Your task to perform on an android device: install app "Fetch Rewards" Image 0: 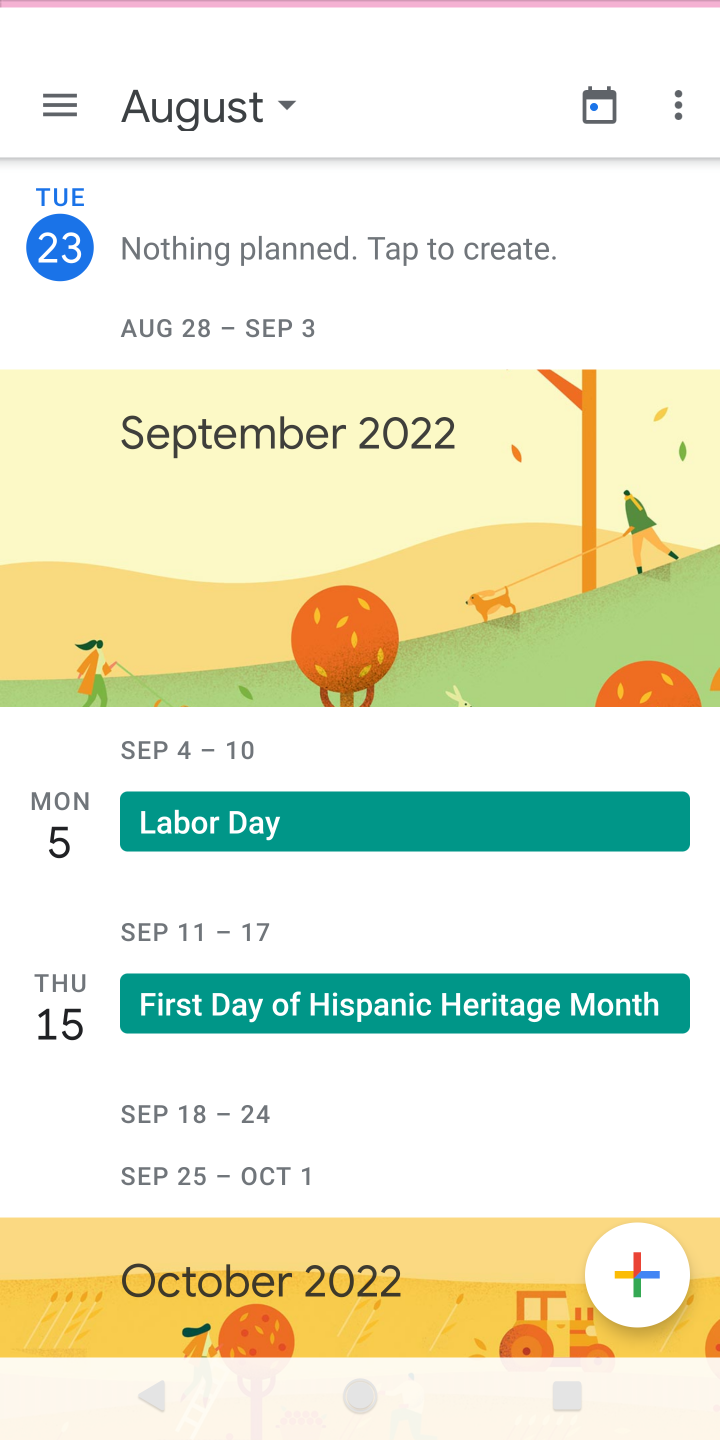
Step 0: press home button
Your task to perform on an android device: install app "Fetch Rewards" Image 1: 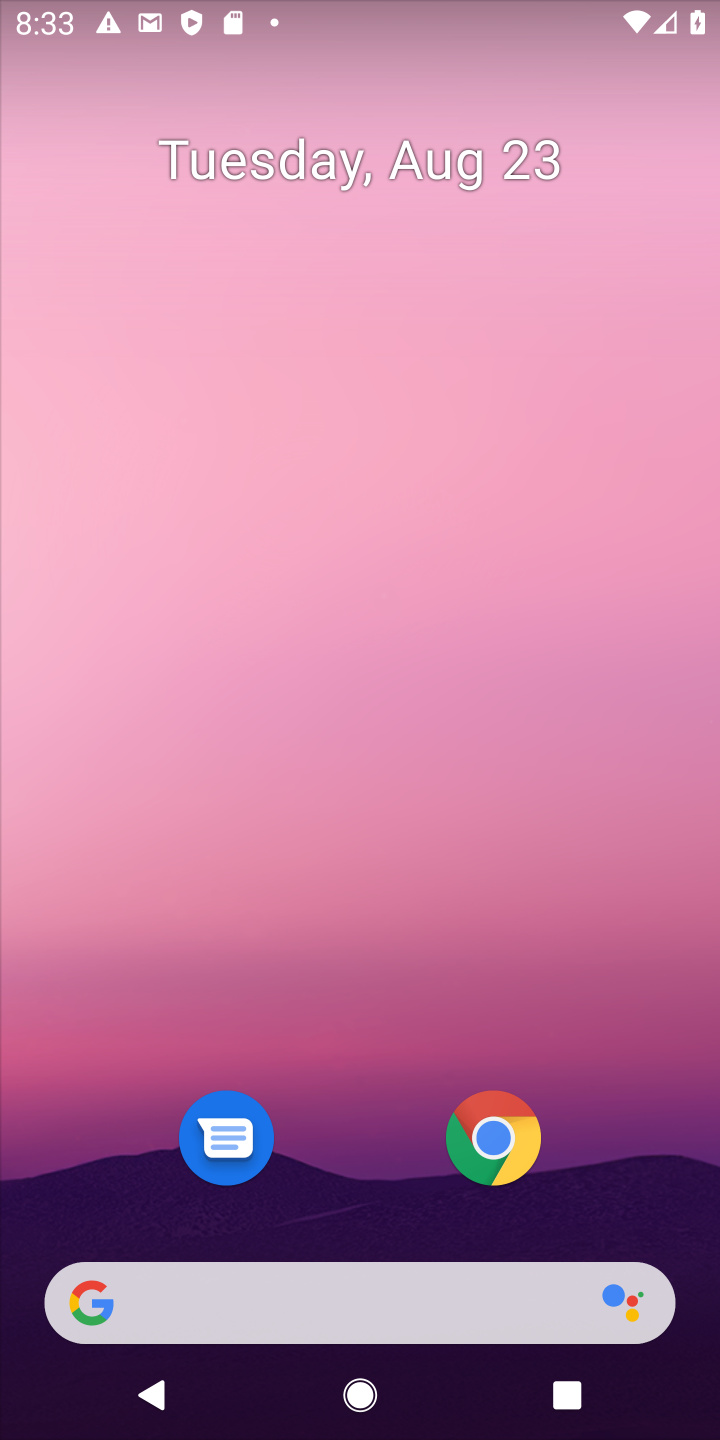
Step 1: drag from (614, 928) to (613, 111)
Your task to perform on an android device: install app "Fetch Rewards" Image 2: 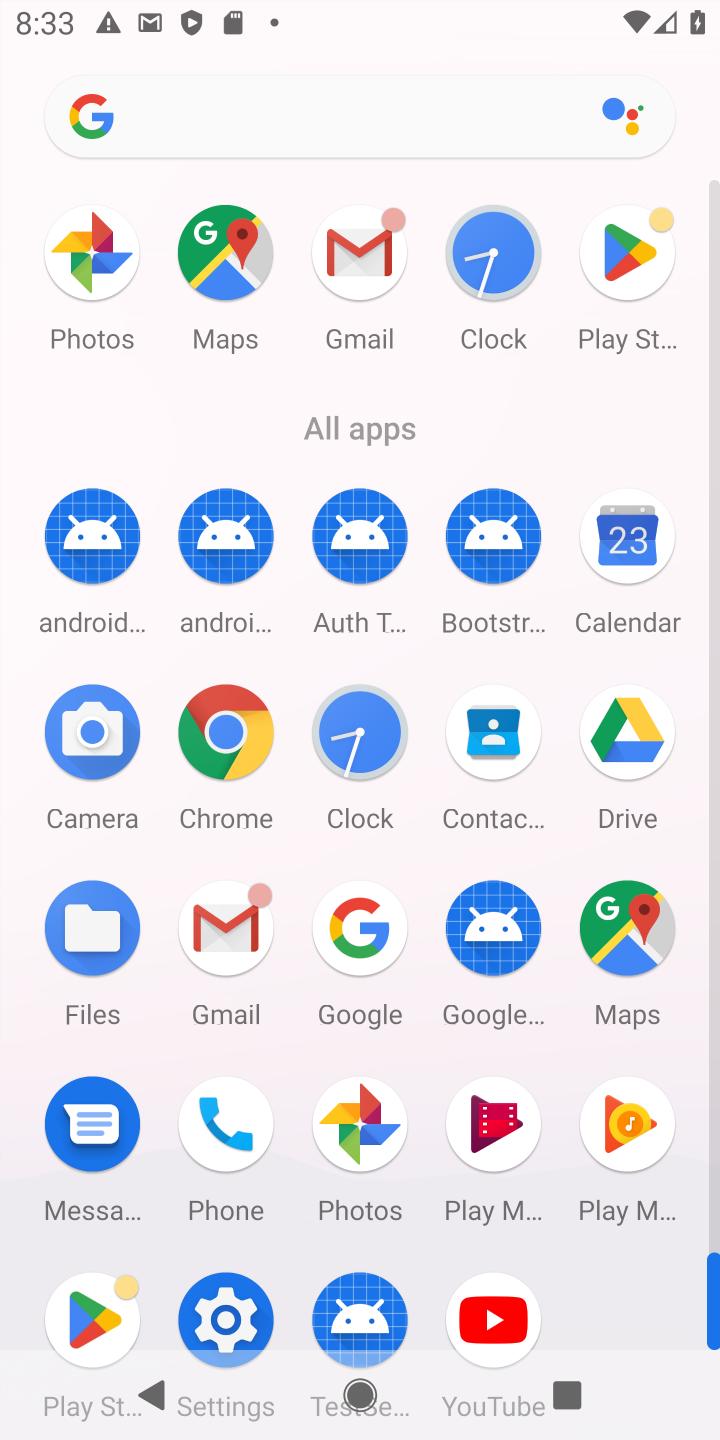
Step 2: click (643, 255)
Your task to perform on an android device: install app "Fetch Rewards" Image 3: 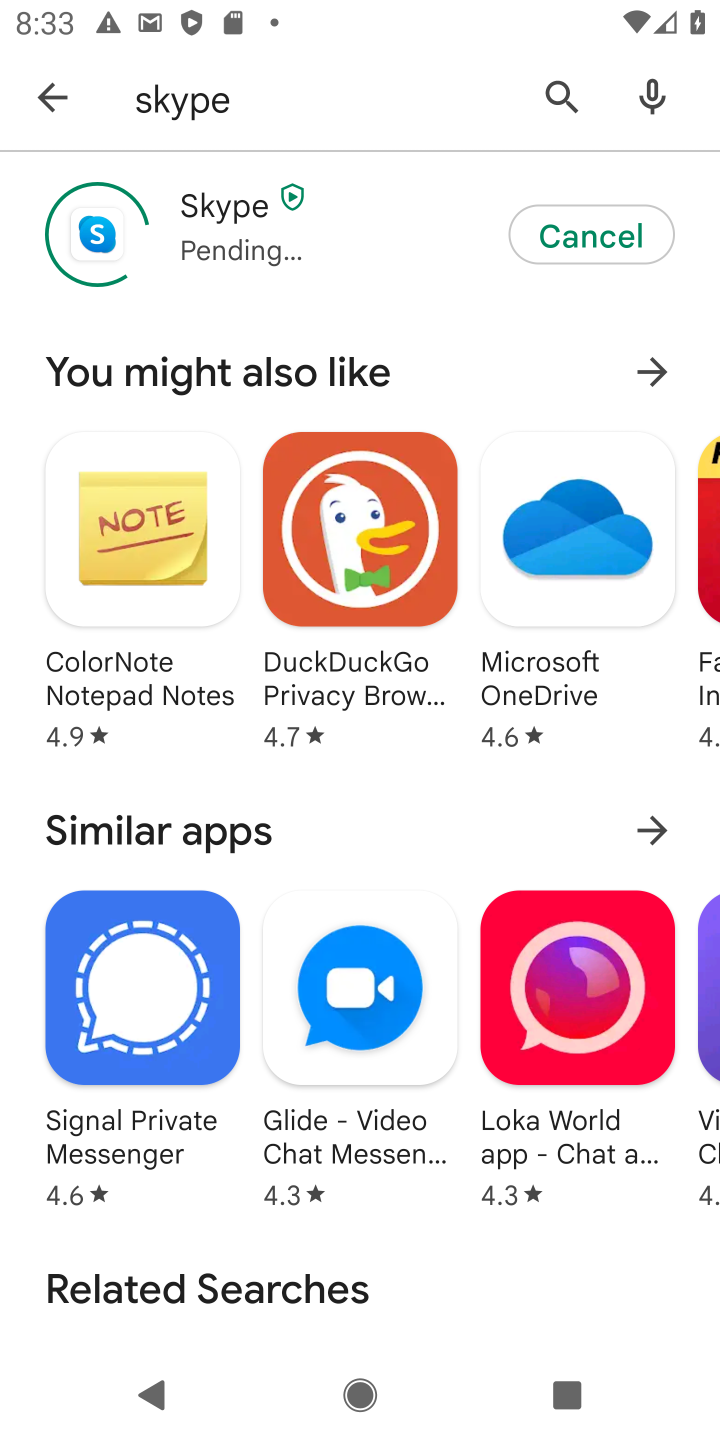
Step 3: press back button
Your task to perform on an android device: install app "Fetch Rewards" Image 4: 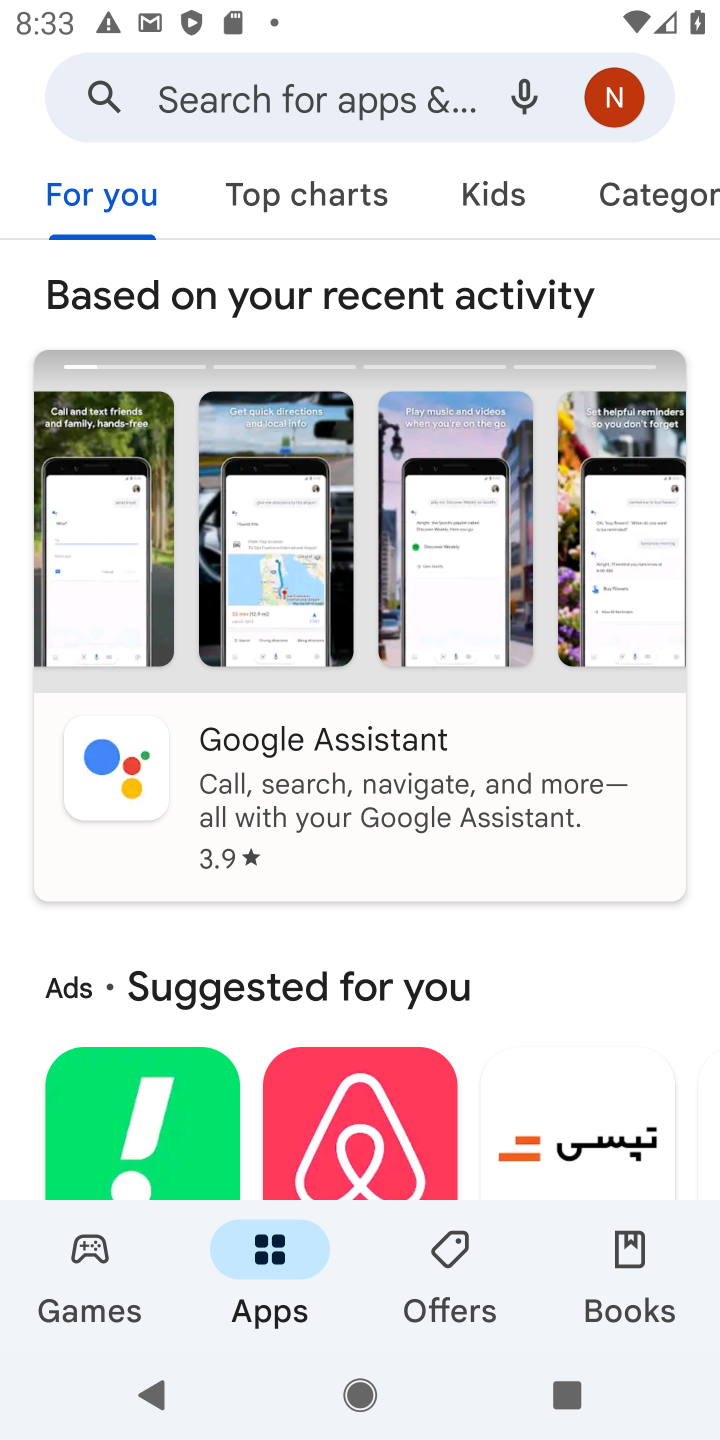
Step 4: click (314, 78)
Your task to perform on an android device: install app "Fetch Rewards" Image 5: 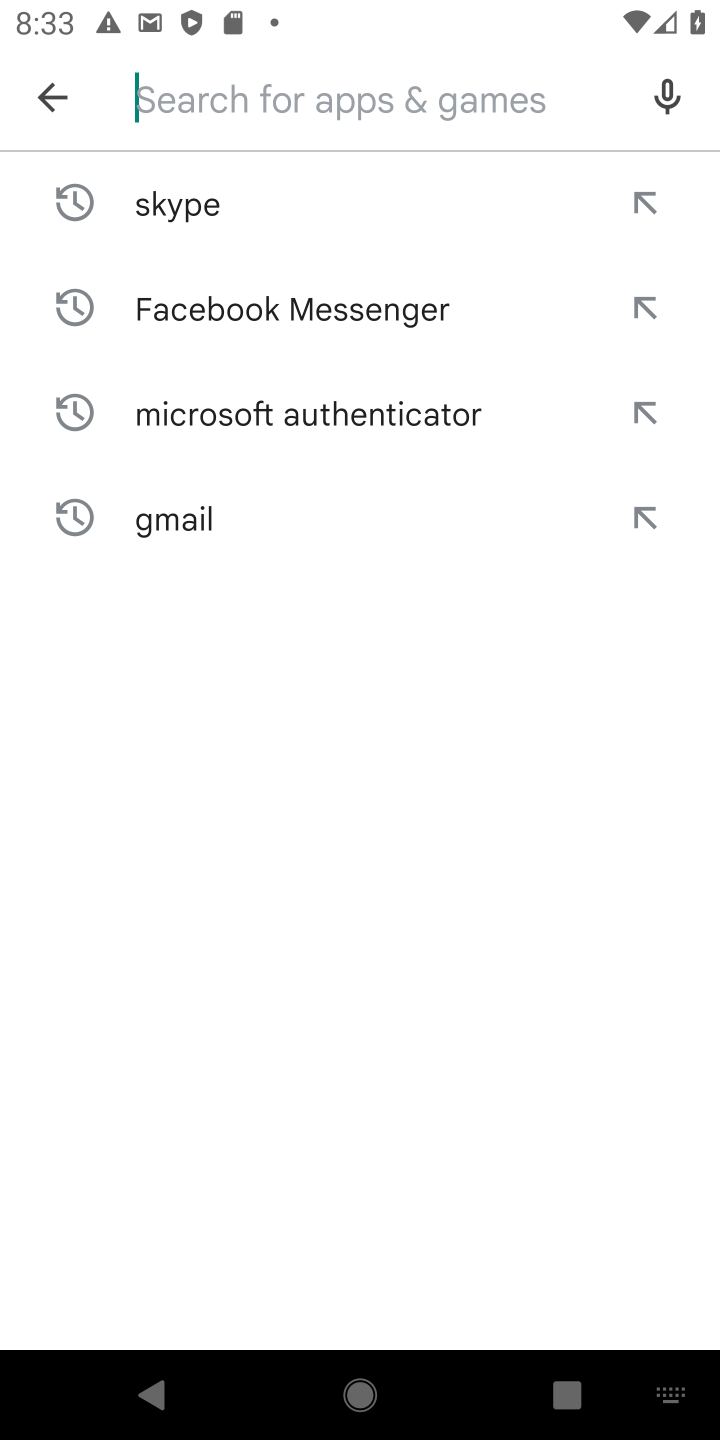
Step 5: press enter
Your task to perform on an android device: install app "Fetch Rewards" Image 6: 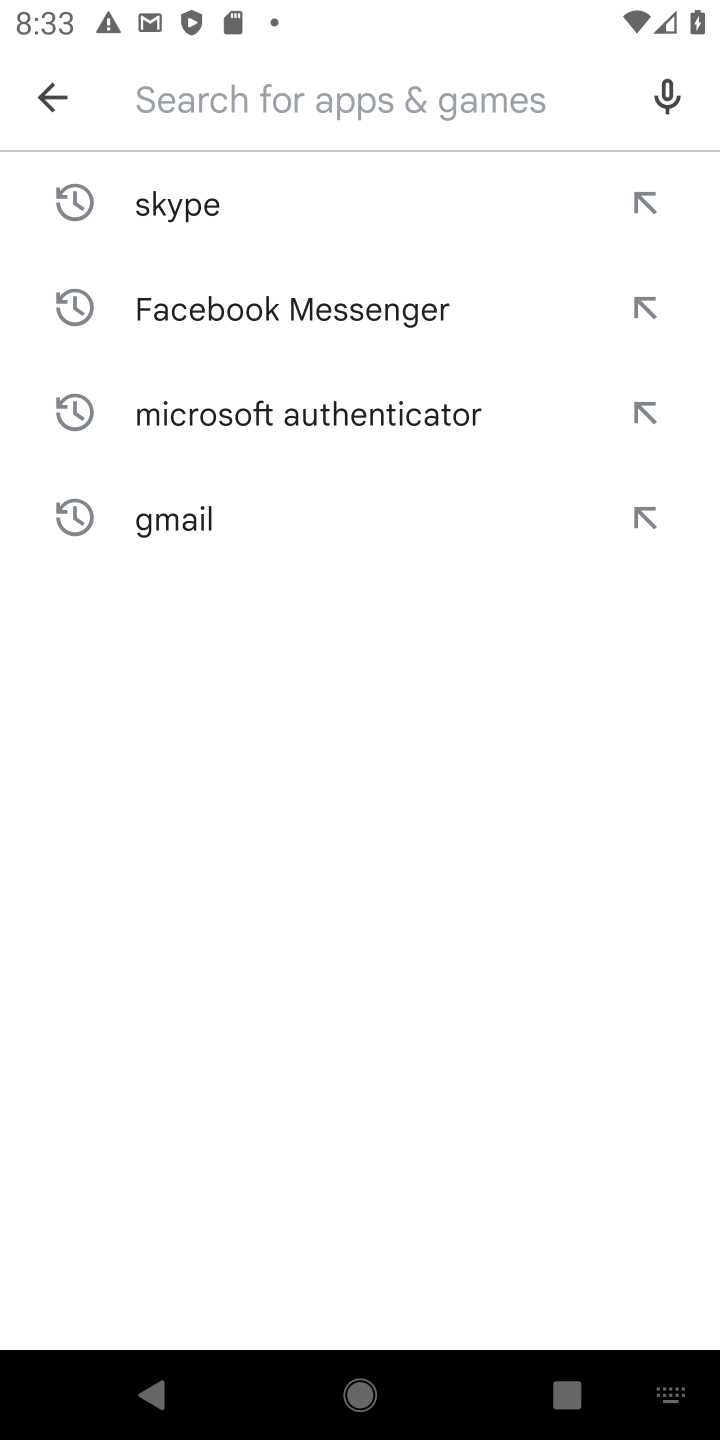
Step 6: type "Fetch Rewards"
Your task to perform on an android device: install app "Fetch Rewards" Image 7: 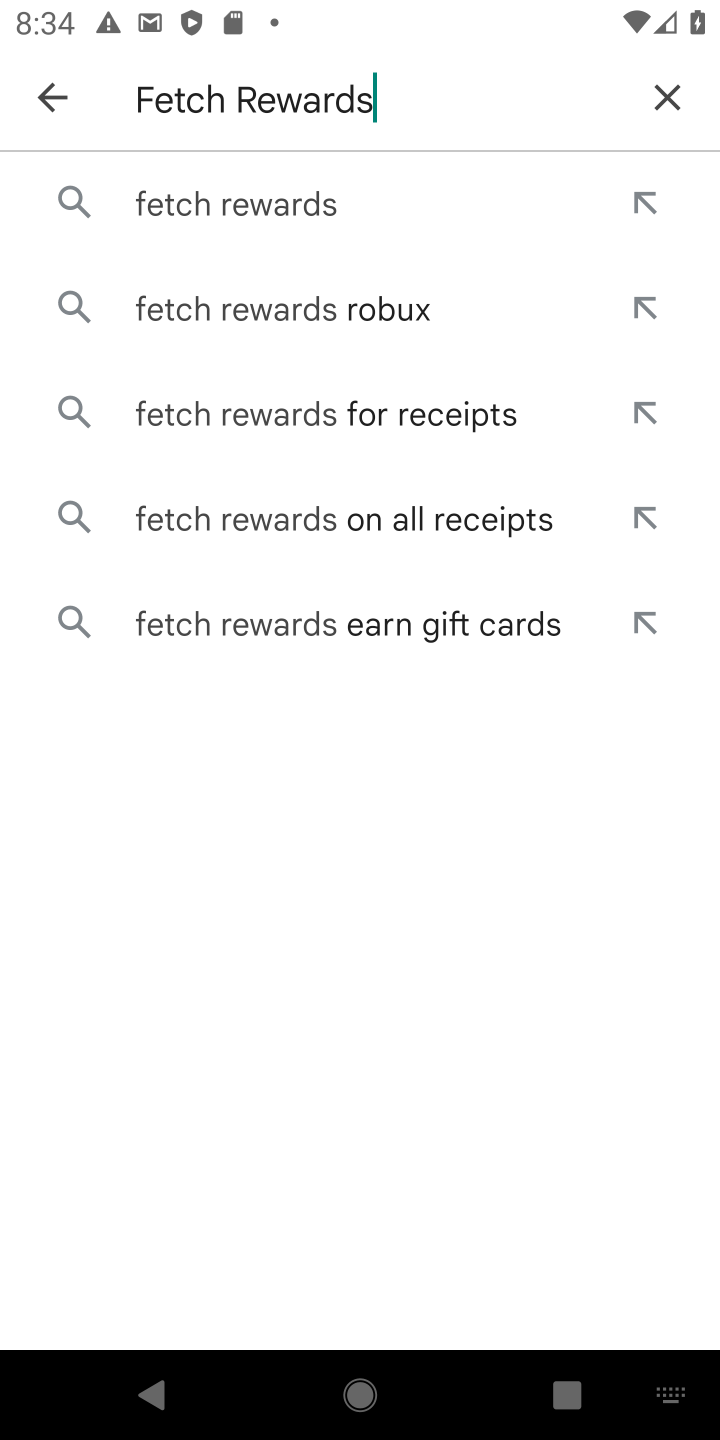
Step 7: click (341, 211)
Your task to perform on an android device: install app "Fetch Rewards" Image 8: 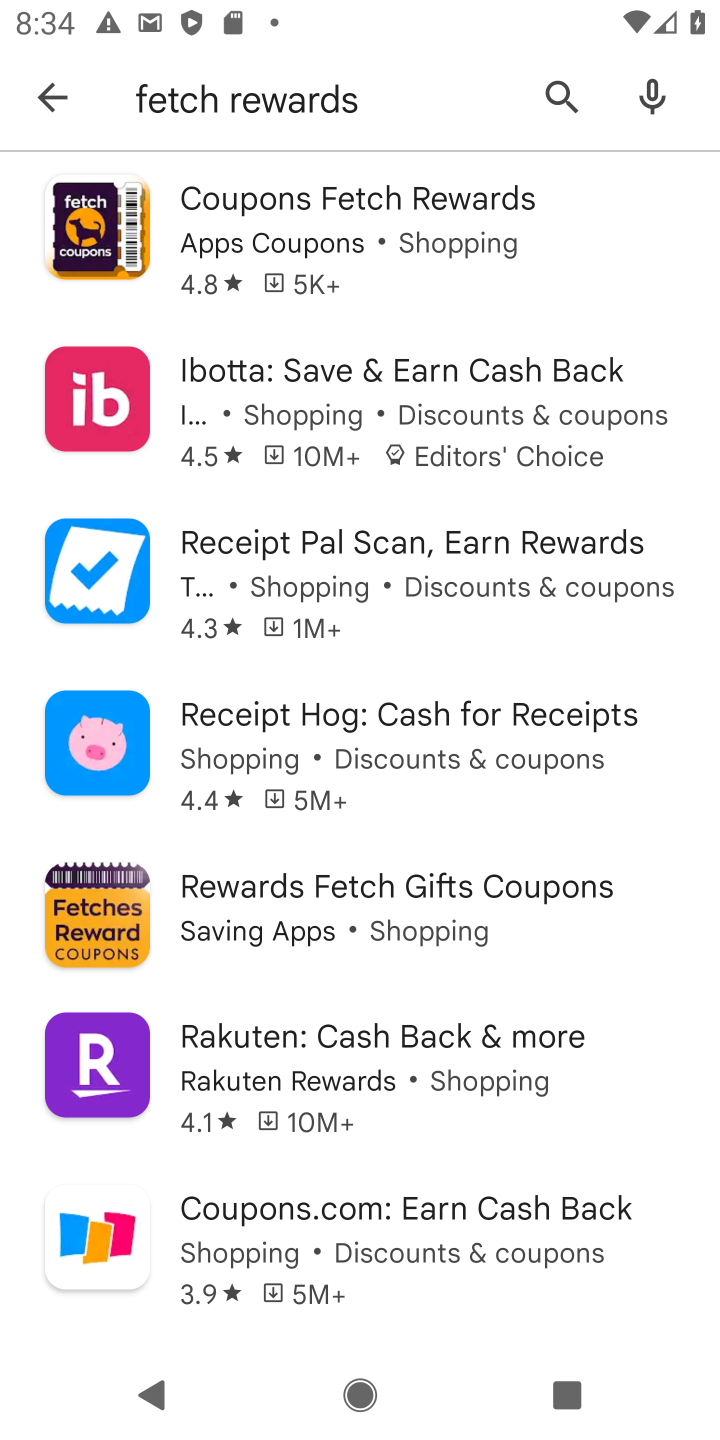
Step 8: task complete